Your task to perform on an android device: change the clock display to analog Image 0: 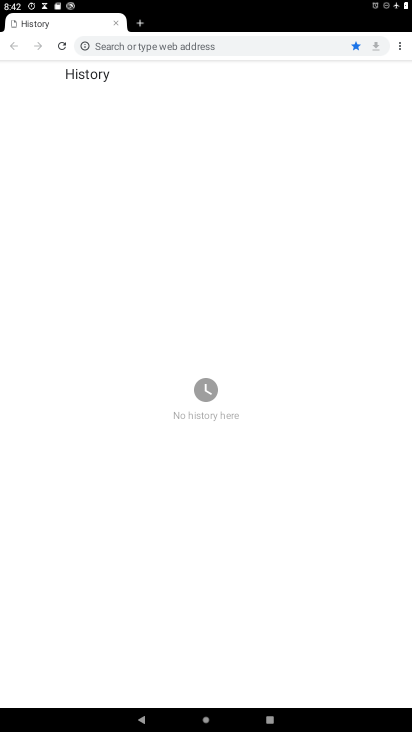
Step 0: press home button
Your task to perform on an android device: change the clock display to analog Image 1: 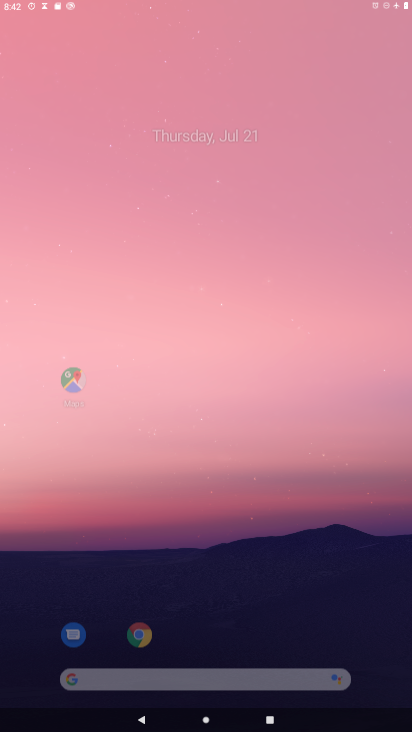
Step 1: drag from (358, 596) to (254, 78)
Your task to perform on an android device: change the clock display to analog Image 2: 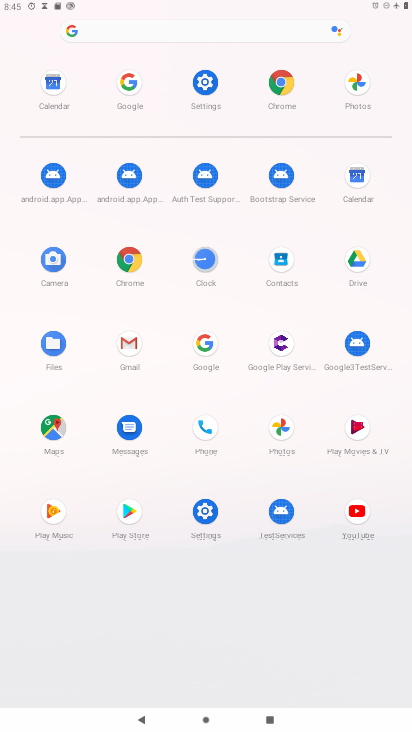
Step 2: click (204, 258)
Your task to perform on an android device: change the clock display to analog Image 3: 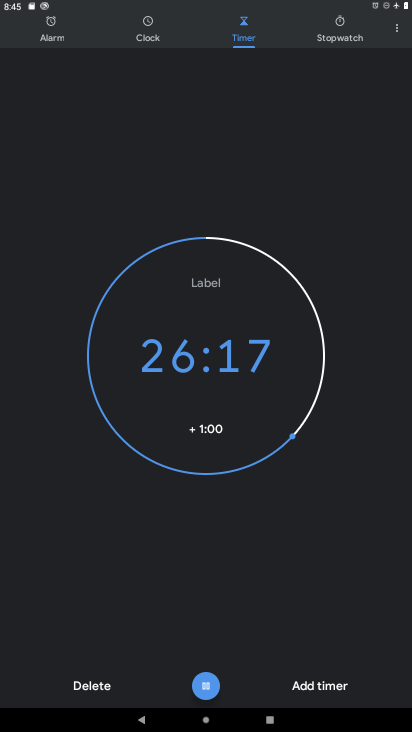
Step 3: click (392, 25)
Your task to perform on an android device: change the clock display to analog Image 4: 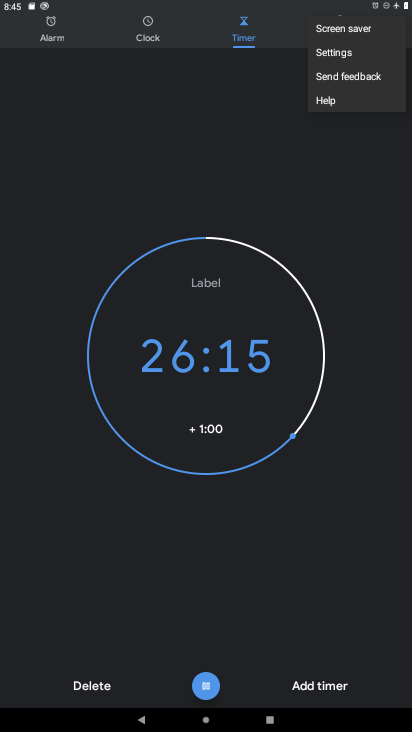
Step 4: click (336, 57)
Your task to perform on an android device: change the clock display to analog Image 5: 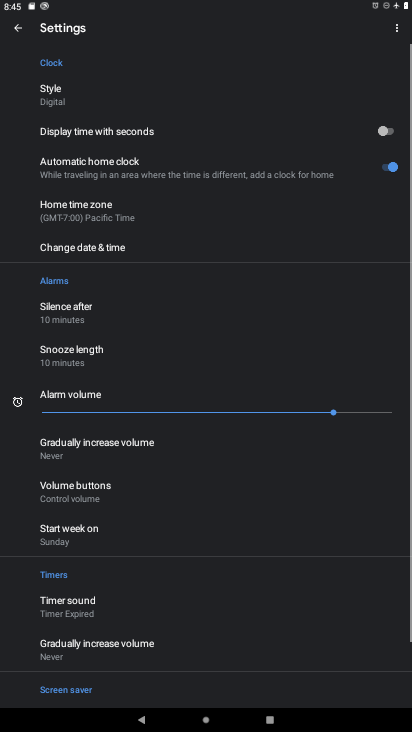
Step 5: click (63, 99)
Your task to perform on an android device: change the clock display to analog Image 6: 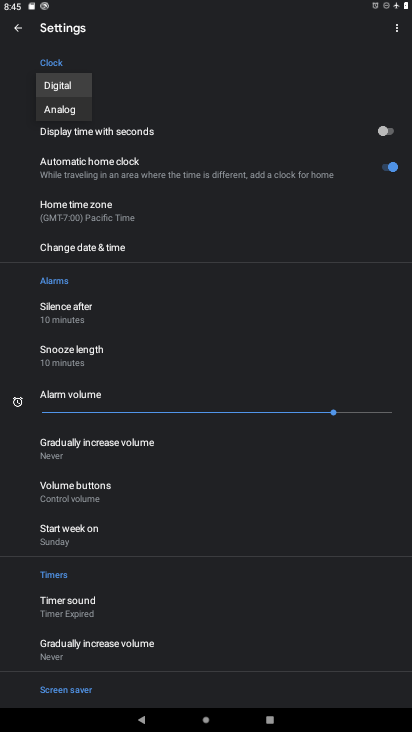
Step 6: click (72, 111)
Your task to perform on an android device: change the clock display to analog Image 7: 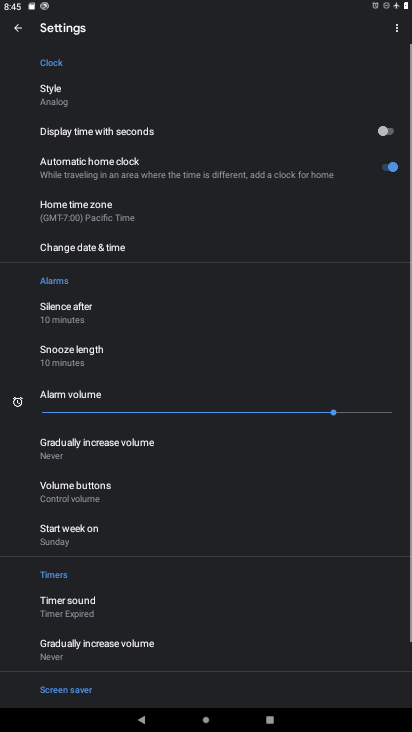
Step 7: task complete